Your task to perform on an android device: Check the weather Image 0: 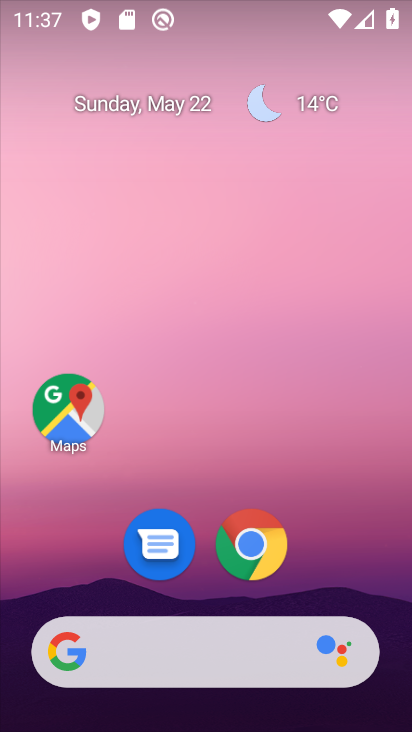
Step 0: drag from (328, 537) to (331, 622)
Your task to perform on an android device: Check the weather Image 1: 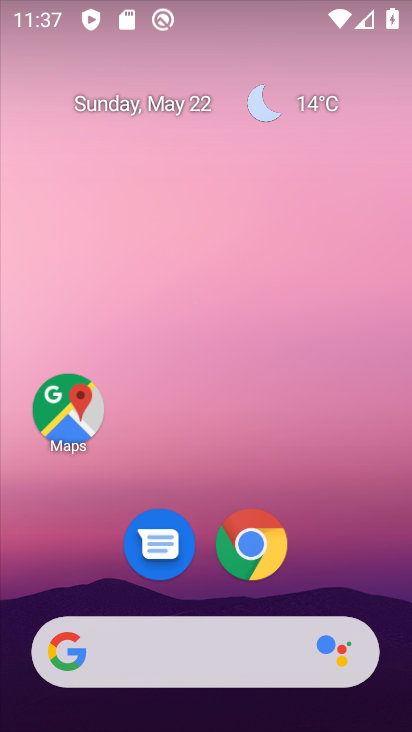
Step 1: click (316, 108)
Your task to perform on an android device: Check the weather Image 2: 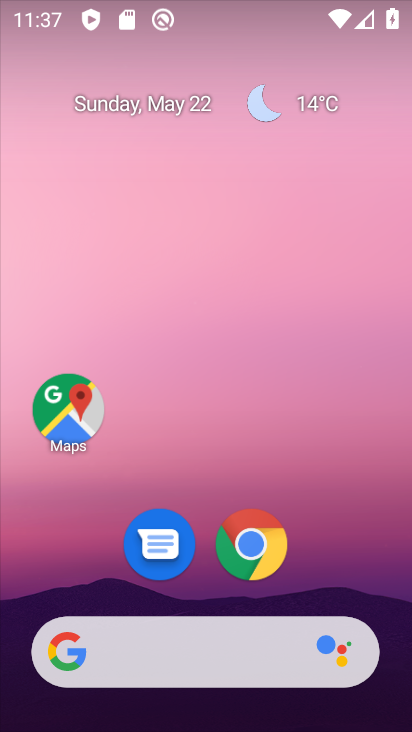
Step 2: click (315, 106)
Your task to perform on an android device: Check the weather Image 3: 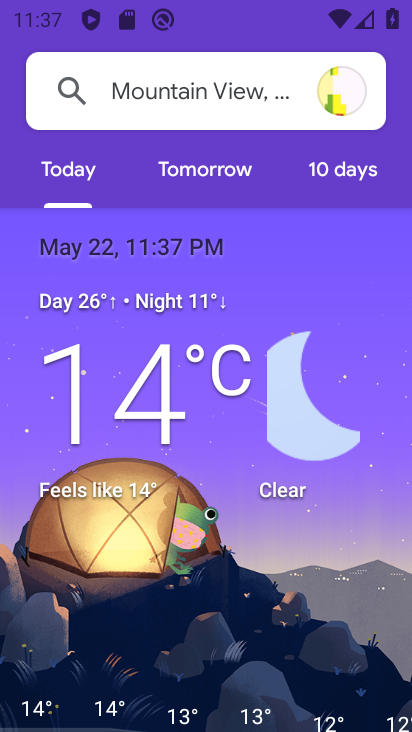
Step 3: task complete